Your task to perform on an android device: turn off sleep mode Image 0: 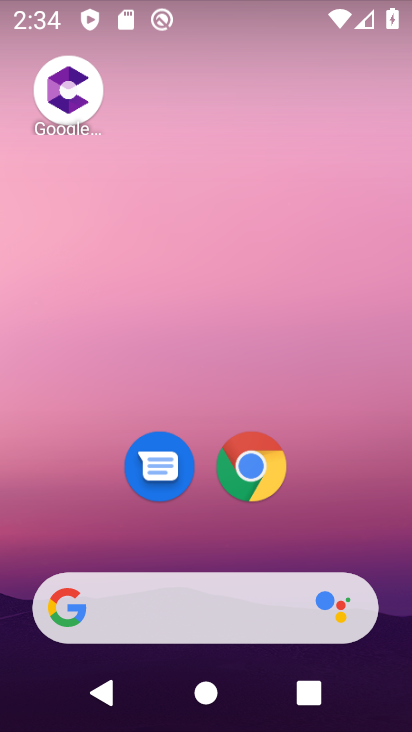
Step 0: drag from (317, 506) to (228, 35)
Your task to perform on an android device: turn off sleep mode Image 1: 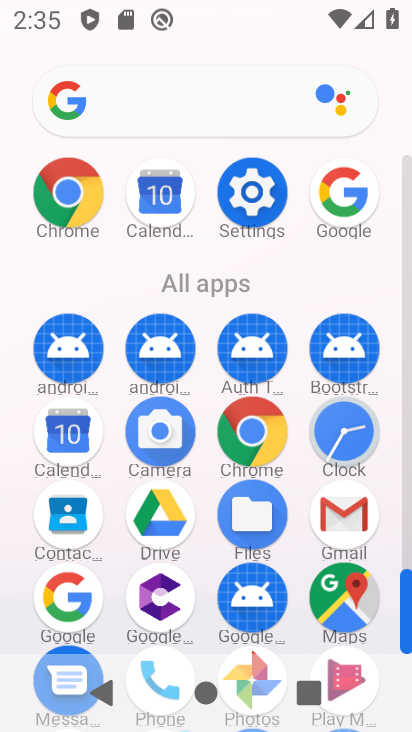
Step 1: click (252, 189)
Your task to perform on an android device: turn off sleep mode Image 2: 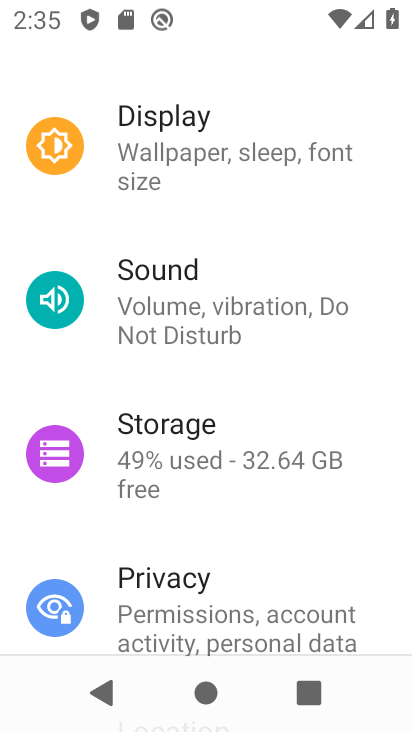
Step 2: drag from (204, 392) to (258, 241)
Your task to perform on an android device: turn off sleep mode Image 3: 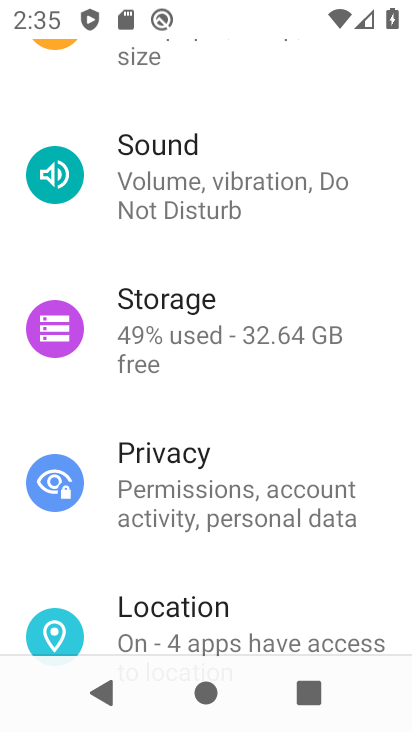
Step 3: drag from (197, 403) to (246, 287)
Your task to perform on an android device: turn off sleep mode Image 4: 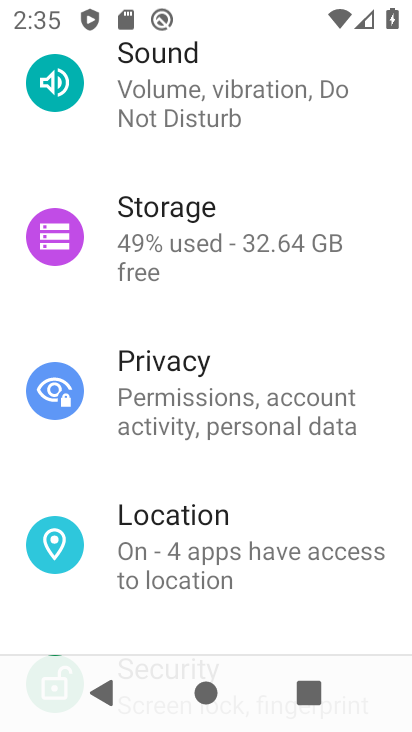
Step 4: drag from (196, 452) to (255, 304)
Your task to perform on an android device: turn off sleep mode Image 5: 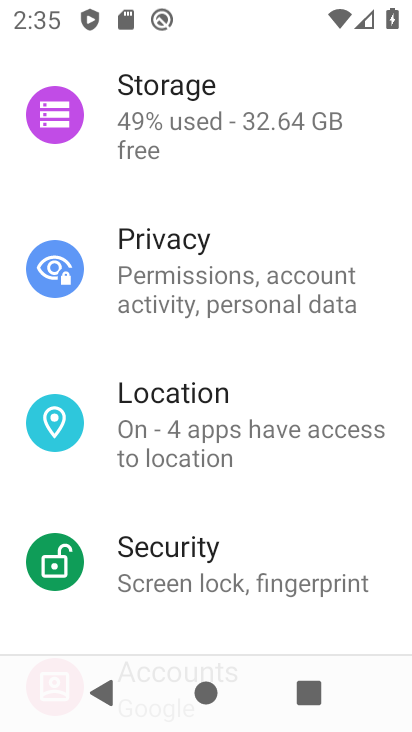
Step 5: drag from (196, 516) to (239, 364)
Your task to perform on an android device: turn off sleep mode Image 6: 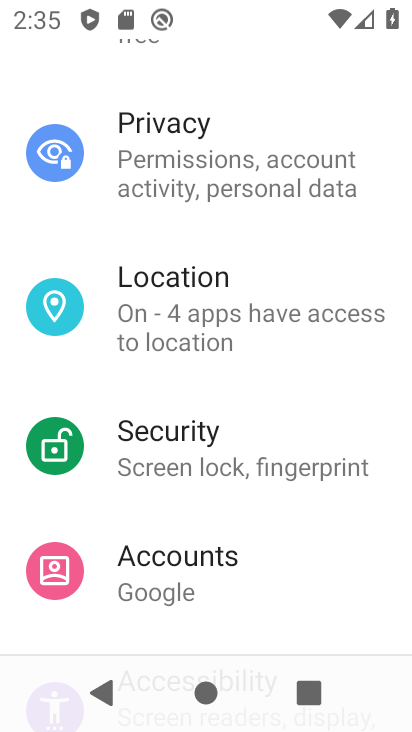
Step 6: drag from (258, 254) to (270, 465)
Your task to perform on an android device: turn off sleep mode Image 7: 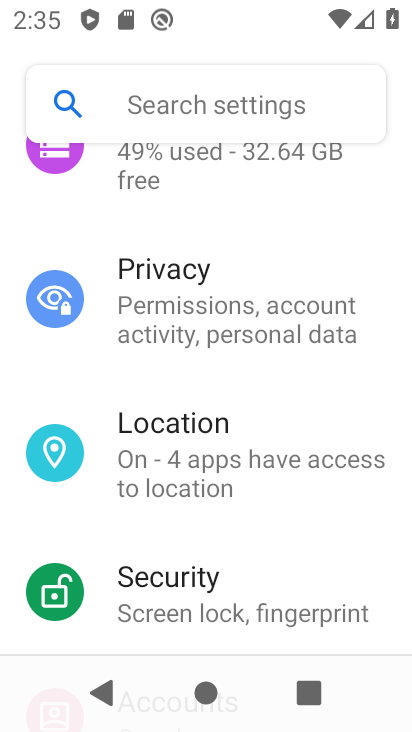
Step 7: drag from (260, 236) to (296, 461)
Your task to perform on an android device: turn off sleep mode Image 8: 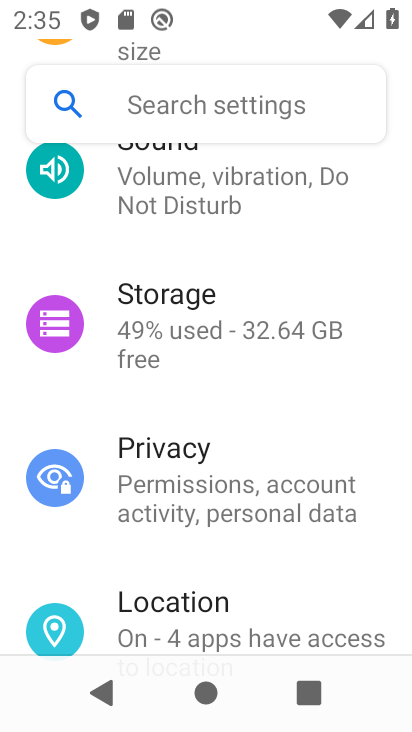
Step 8: drag from (220, 267) to (219, 430)
Your task to perform on an android device: turn off sleep mode Image 9: 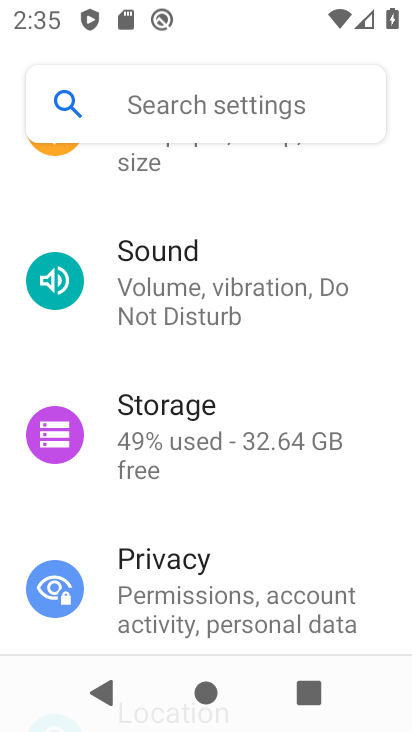
Step 9: drag from (253, 228) to (299, 393)
Your task to perform on an android device: turn off sleep mode Image 10: 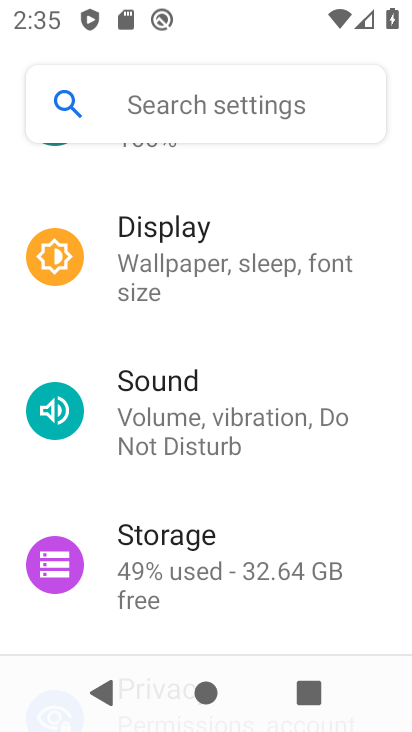
Step 10: drag from (246, 178) to (293, 368)
Your task to perform on an android device: turn off sleep mode Image 11: 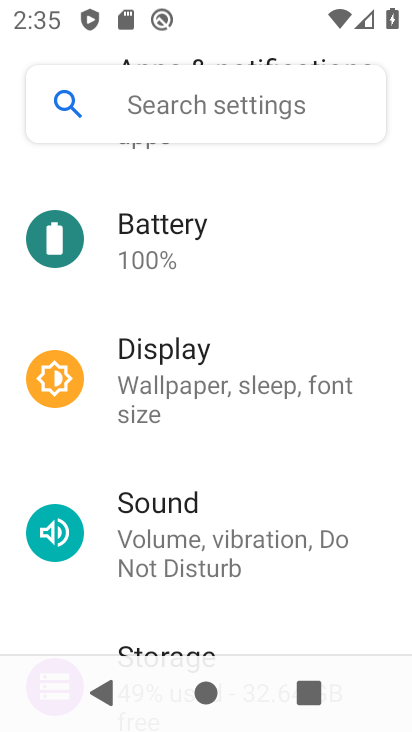
Step 11: drag from (249, 209) to (290, 358)
Your task to perform on an android device: turn off sleep mode Image 12: 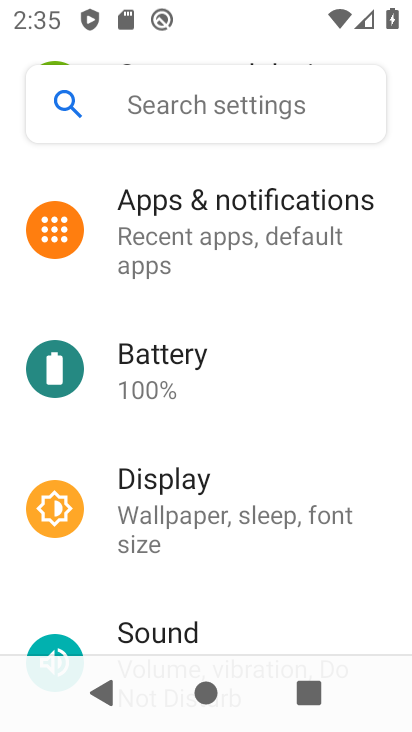
Step 12: click (208, 500)
Your task to perform on an android device: turn off sleep mode Image 13: 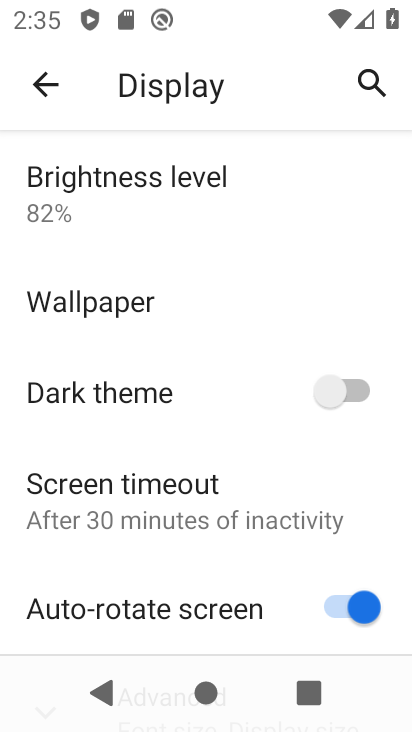
Step 13: drag from (213, 511) to (187, 329)
Your task to perform on an android device: turn off sleep mode Image 14: 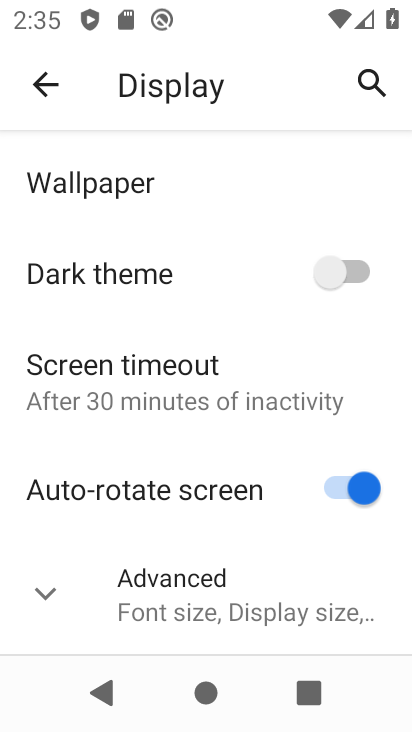
Step 14: click (176, 400)
Your task to perform on an android device: turn off sleep mode Image 15: 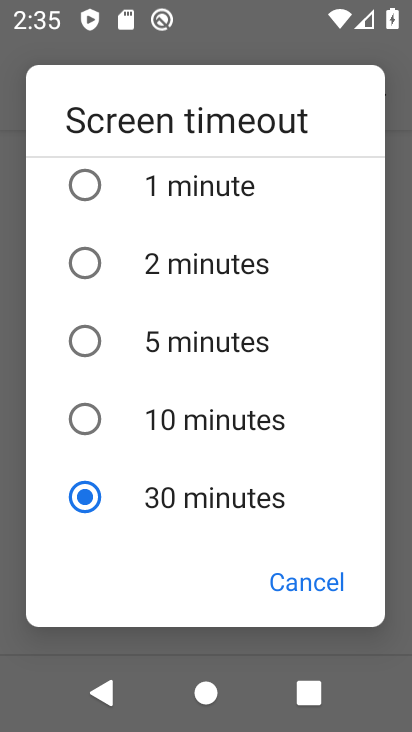
Step 15: click (317, 589)
Your task to perform on an android device: turn off sleep mode Image 16: 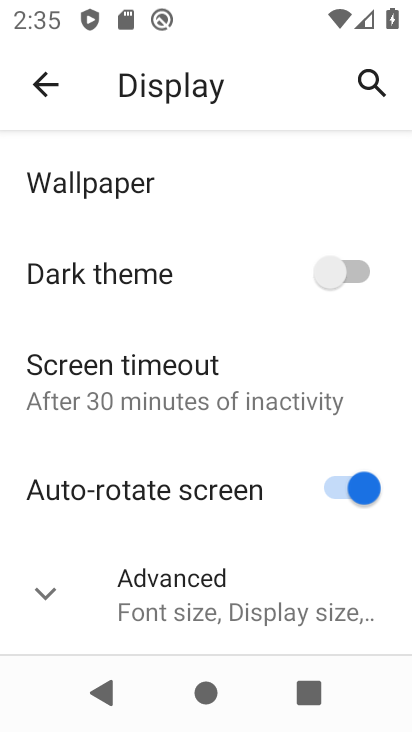
Step 16: drag from (253, 538) to (211, 347)
Your task to perform on an android device: turn off sleep mode Image 17: 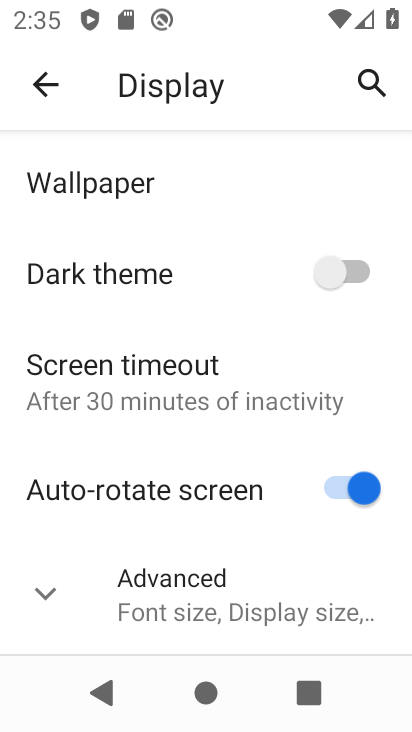
Step 17: click (172, 579)
Your task to perform on an android device: turn off sleep mode Image 18: 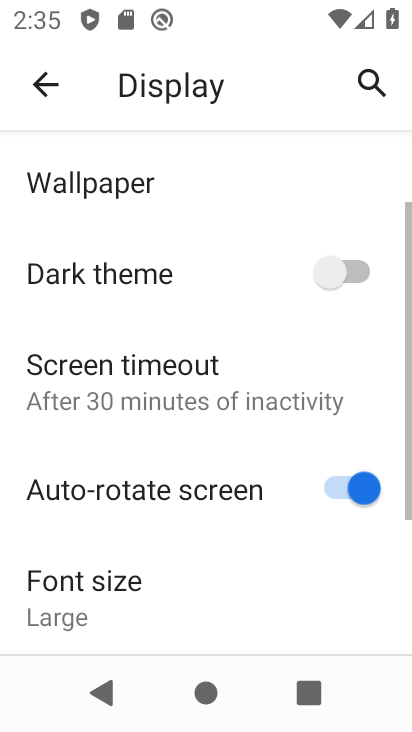
Step 18: task complete